Your task to perform on an android device: visit the assistant section in the google photos Image 0: 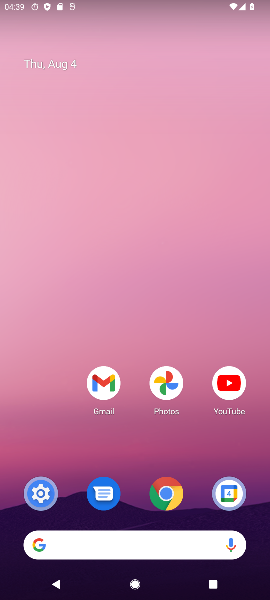
Step 0: click (175, 383)
Your task to perform on an android device: visit the assistant section in the google photos Image 1: 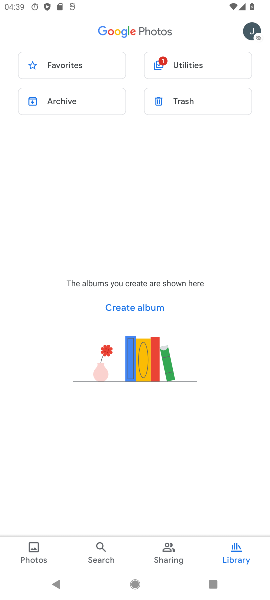
Step 1: click (27, 546)
Your task to perform on an android device: visit the assistant section in the google photos Image 2: 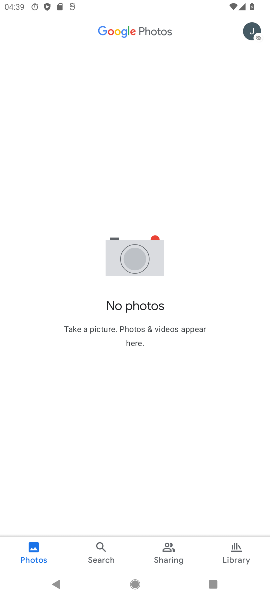
Step 2: click (249, 31)
Your task to perform on an android device: visit the assistant section in the google photos Image 3: 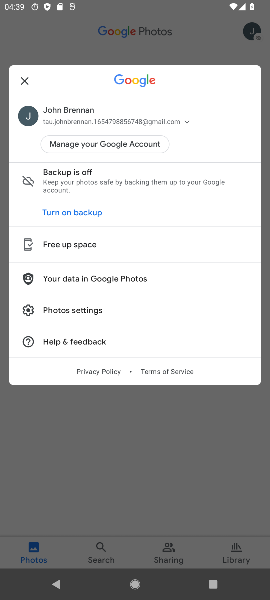
Step 3: click (138, 453)
Your task to perform on an android device: visit the assistant section in the google photos Image 4: 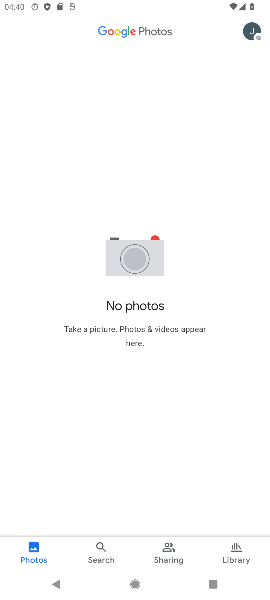
Step 4: task complete